Your task to perform on an android device: remove spam from my inbox in the gmail app Image 0: 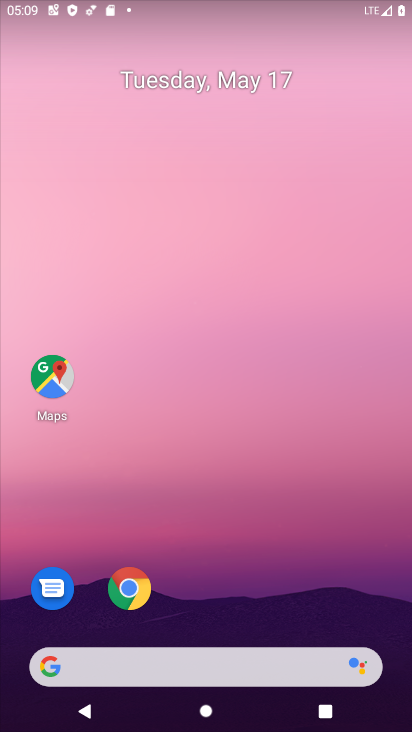
Step 0: drag from (265, 586) to (206, 123)
Your task to perform on an android device: remove spam from my inbox in the gmail app Image 1: 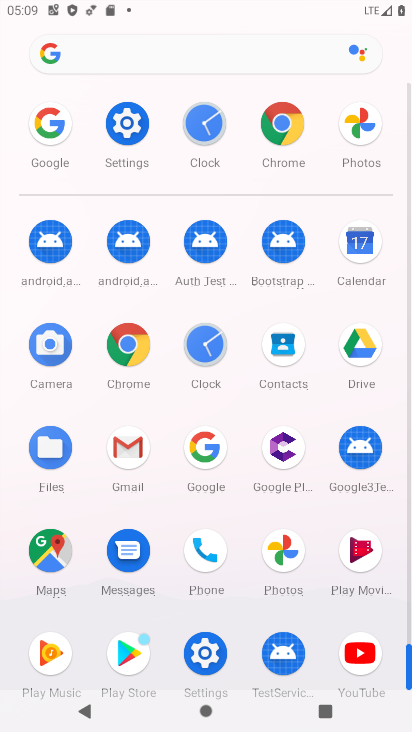
Step 1: click (126, 441)
Your task to perform on an android device: remove spam from my inbox in the gmail app Image 2: 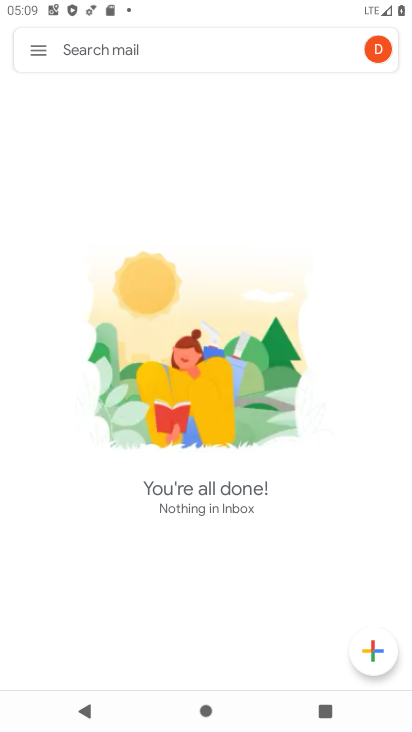
Step 2: click (32, 49)
Your task to perform on an android device: remove spam from my inbox in the gmail app Image 3: 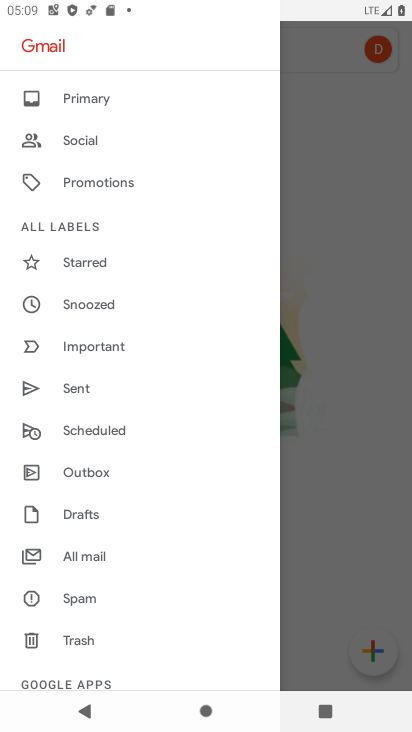
Step 3: click (83, 600)
Your task to perform on an android device: remove spam from my inbox in the gmail app Image 4: 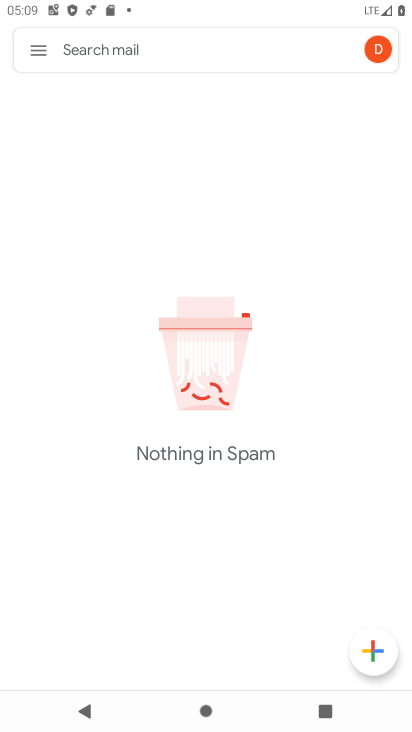
Step 4: task complete